Your task to perform on an android device: change text size in settings app Image 0: 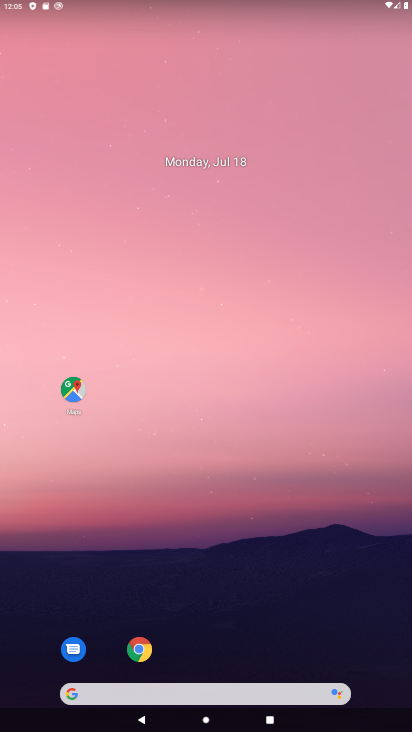
Step 0: drag from (229, 710) to (240, 362)
Your task to perform on an android device: change text size in settings app Image 1: 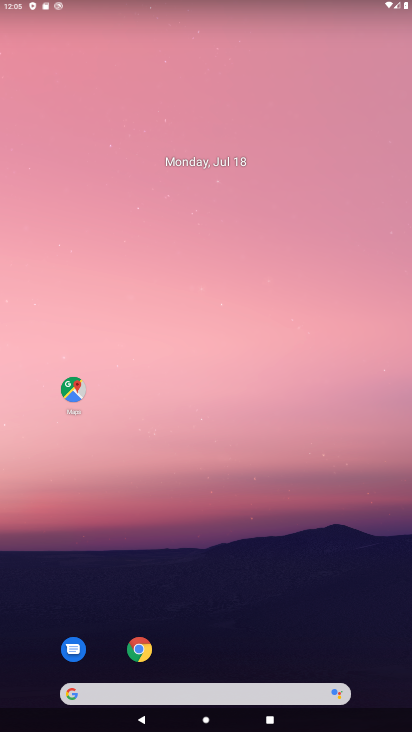
Step 1: drag from (227, 655) to (208, 158)
Your task to perform on an android device: change text size in settings app Image 2: 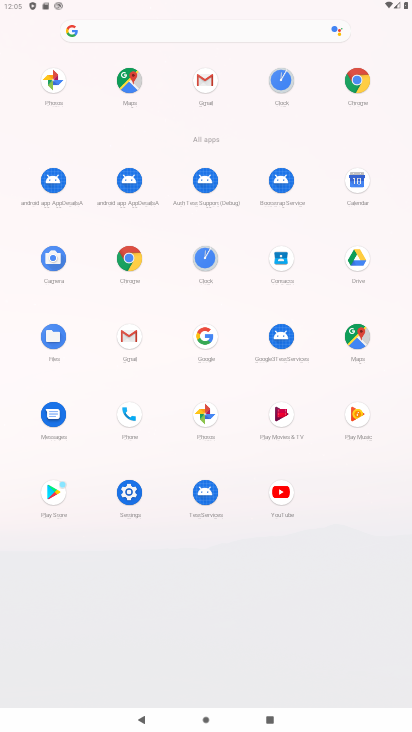
Step 2: click (133, 497)
Your task to perform on an android device: change text size in settings app Image 3: 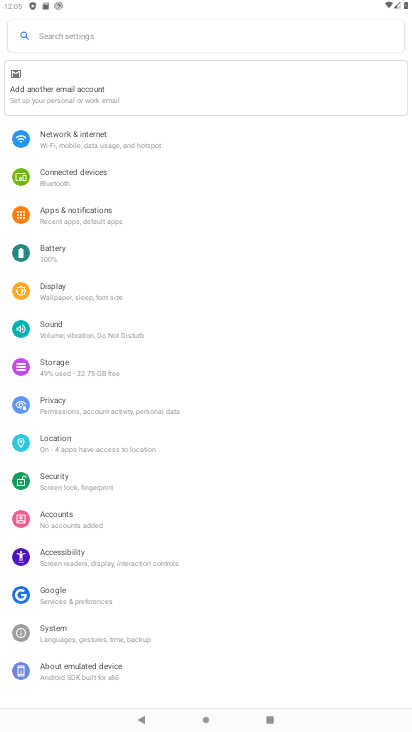
Step 3: click (87, 551)
Your task to perform on an android device: change text size in settings app Image 4: 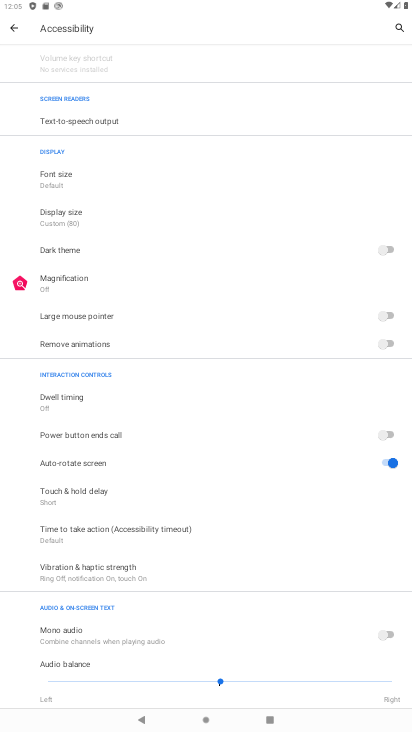
Step 4: click (69, 182)
Your task to perform on an android device: change text size in settings app Image 5: 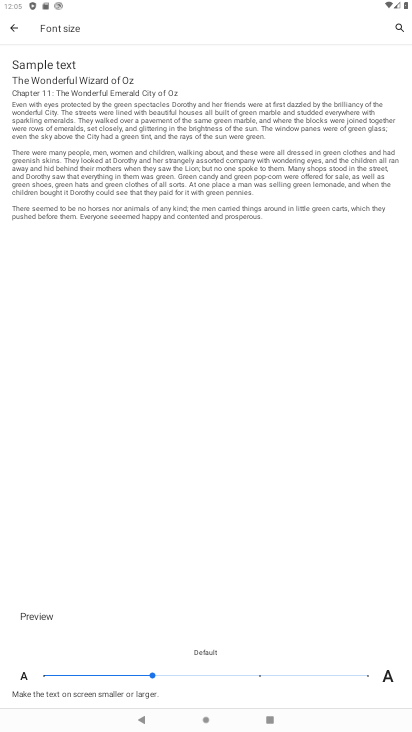
Step 5: click (363, 676)
Your task to perform on an android device: change text size in settings app Image 6: 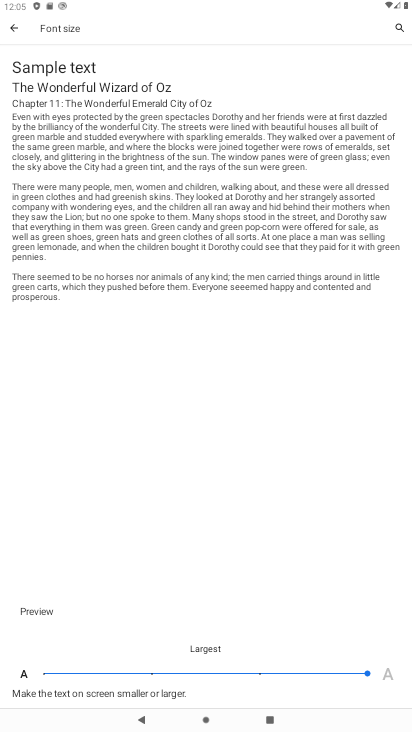
Step 6: task complete